Your task to perform on an android device: Open settings on Google Maps Image 0: 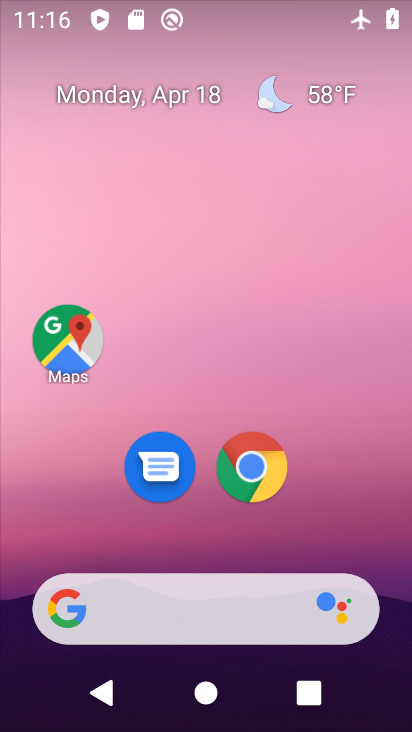
Step 0: click (66, 343)
Your task to perform on an android device: Open settings on Google Maps Image 1: 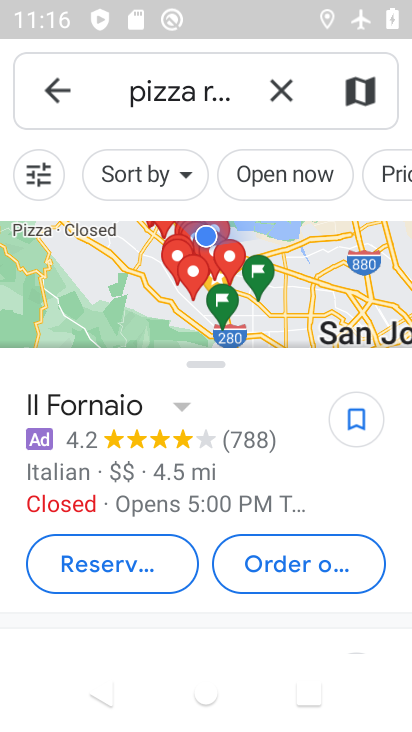
Step 1: click (283, 92)
Your task to perform on an android device: Open settings on Google Maps Image 2: 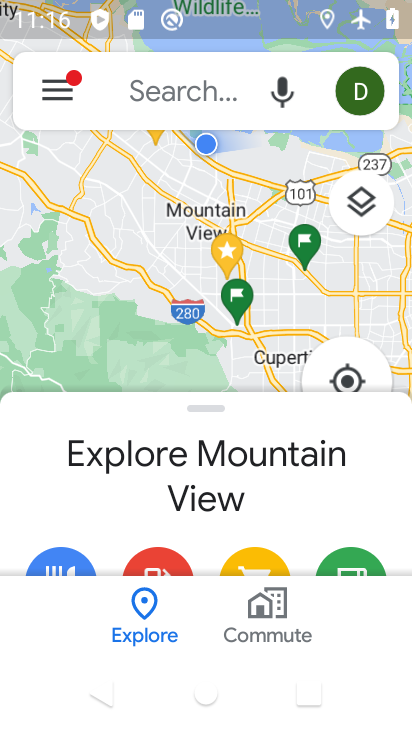
Step 2: click (54, 91)
Your task to perform on an android device: Open settings on Google Maps Image 3: 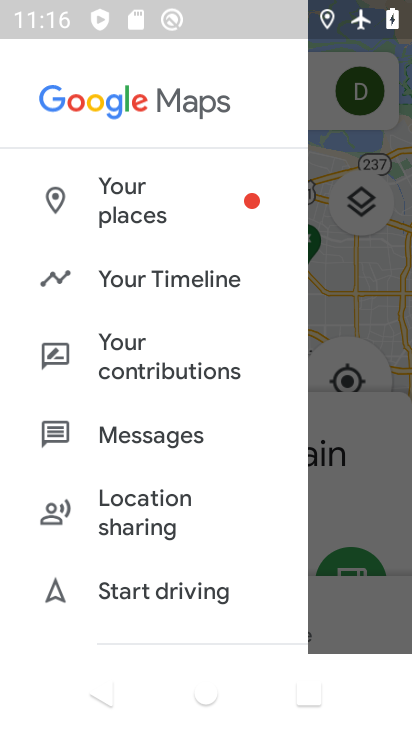
Step 3: drag from (167, 557) to (129, 233)
Your task to perform on an android device: Open settings on Google Maps Image 4: 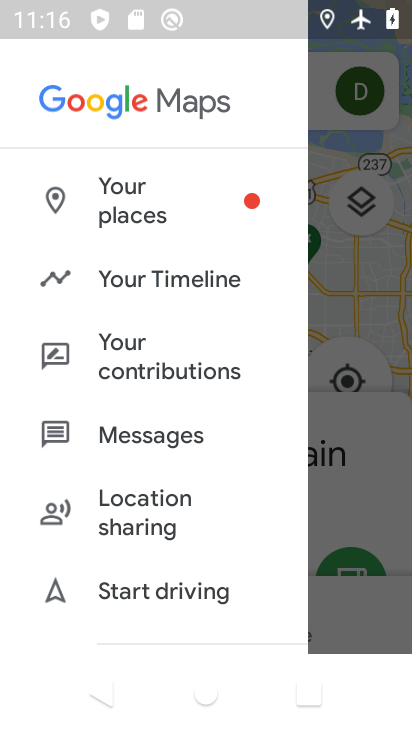
Step 4: drag from (158, 516) to (158, 193)
Your task to perform on an android device: Open settings on Google Maps Image 5: 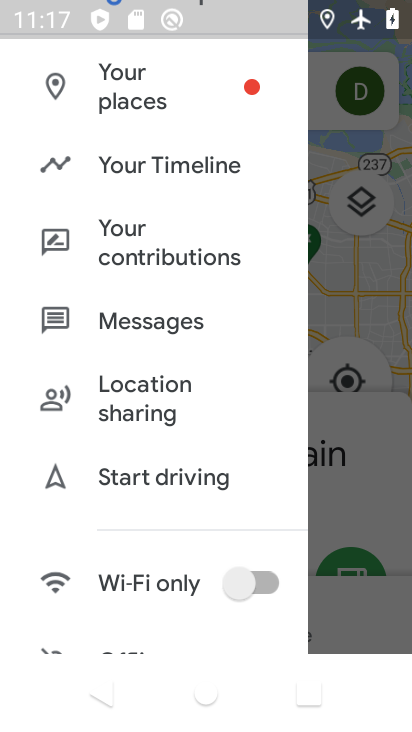
Step 5: drag from (128, 605) to (144, 185)
Your task to perform on an android device: Open settings on Google Maps Image 6: 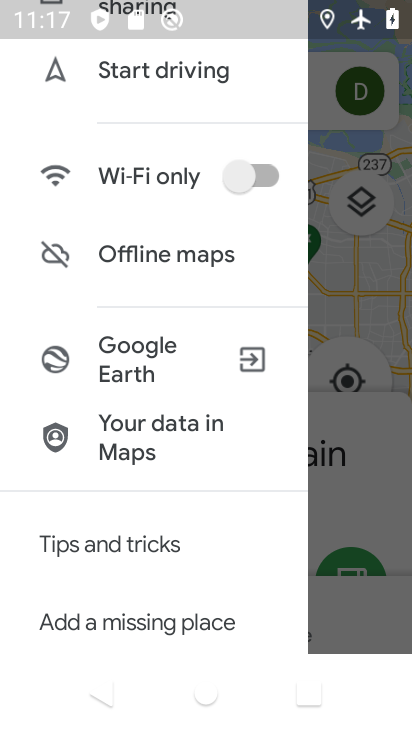
Step 6: click (160, 226)
Your task to perform on an android device: Open settings on Google Maps Image 7: 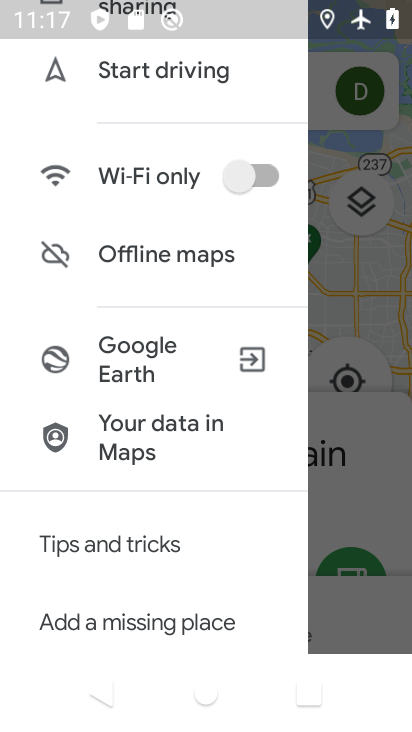
Step 7: drag from (133, 447) to (161, 154)
Your task to perform on an android device: Open settings on Google Maps Image 8: 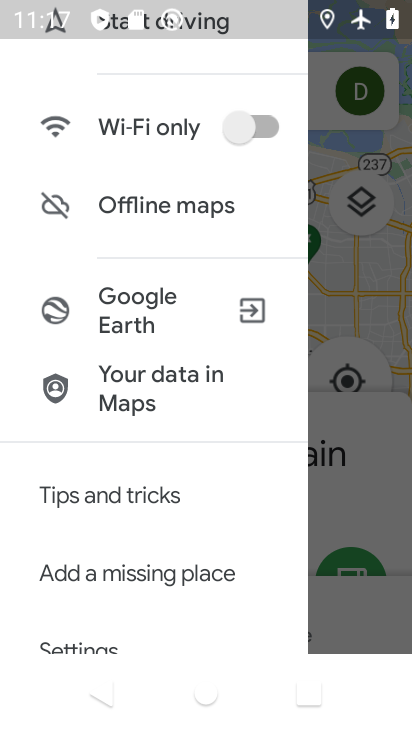
Step 8: click (98, 647)
Your task to perform on an android device: Open settings on Google Maps Image 9: 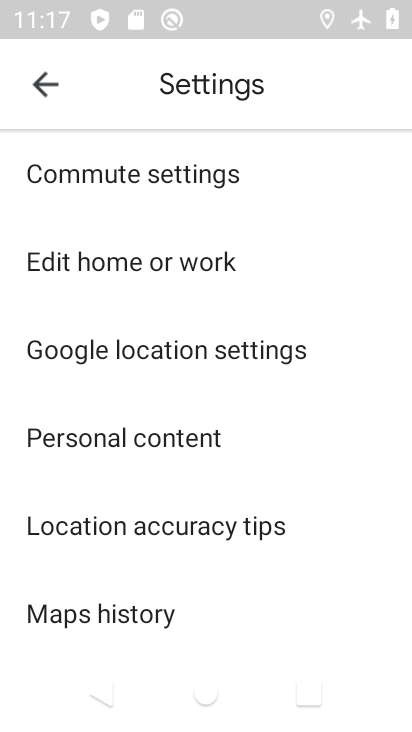
Step 9: task complete